Your task to perform on an android device: Go to Google Image 0: 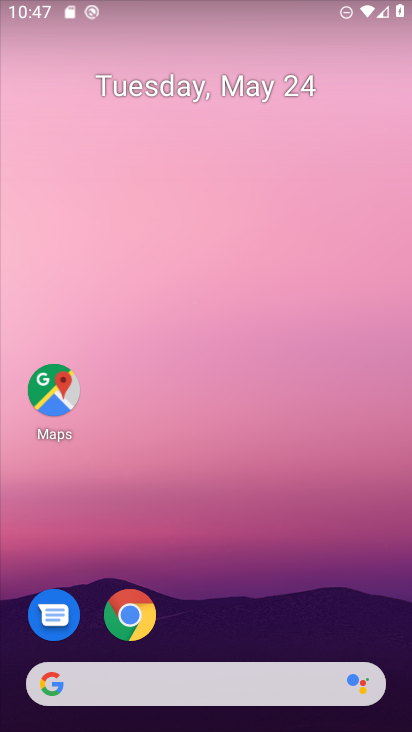
Step 0: press home button
Your task to perform on an android device: Go to Google Image 1: 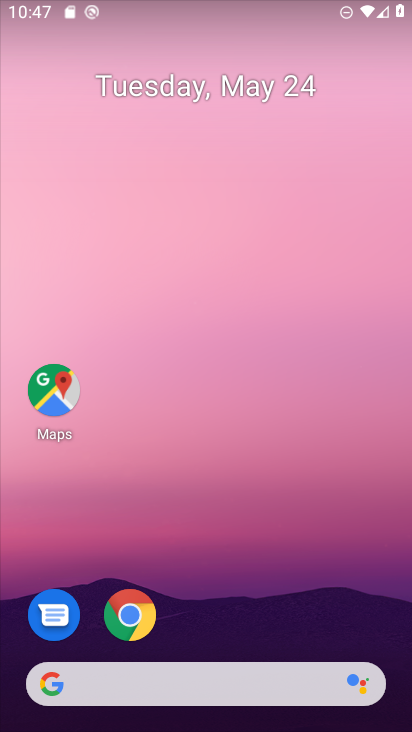
Step 1: drag from (248, 705) to (372, 2)
Your task to perform on an android device: Go to Google Image 2: 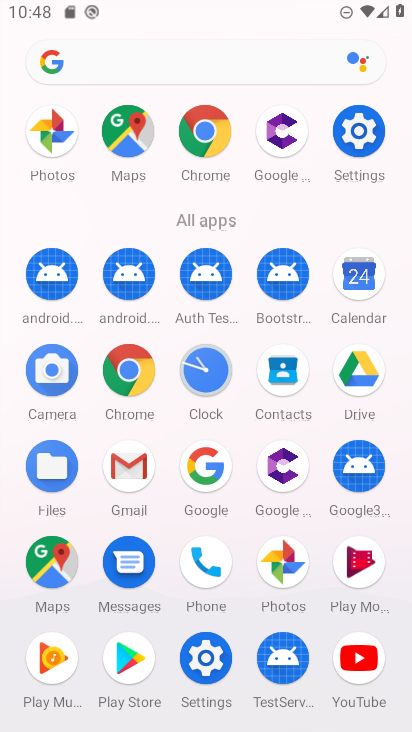
Step 2: click (49, 58)
Your task to perform on an android device: Go to Google Image 3: 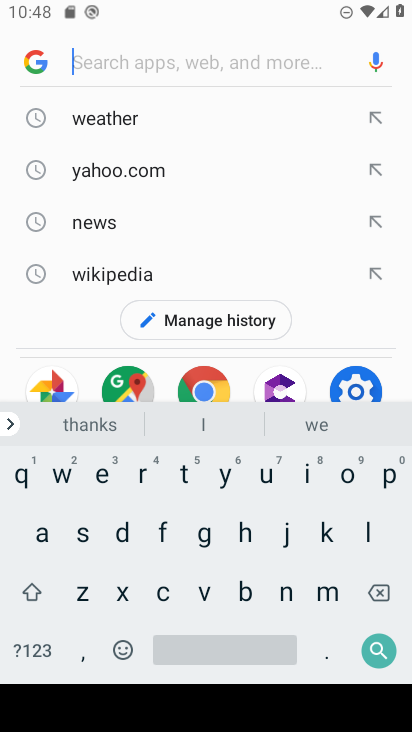
Step 3: click (33, 56)
Your task to perform on an android device: Go to Google Image 4: 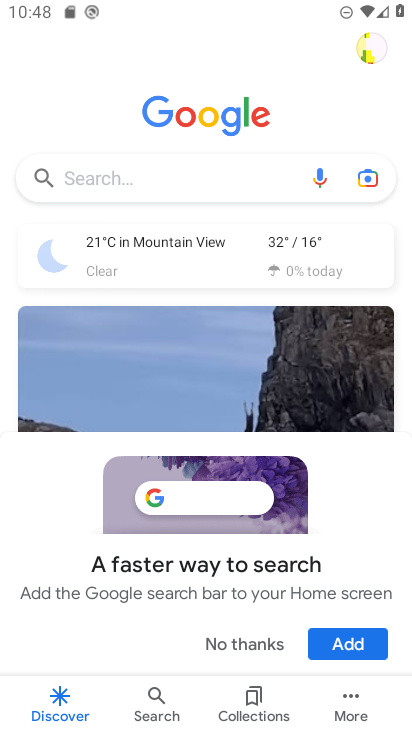
Step 4: task complete